Your task to perform on an android device: Open Wikipedia Image 0: 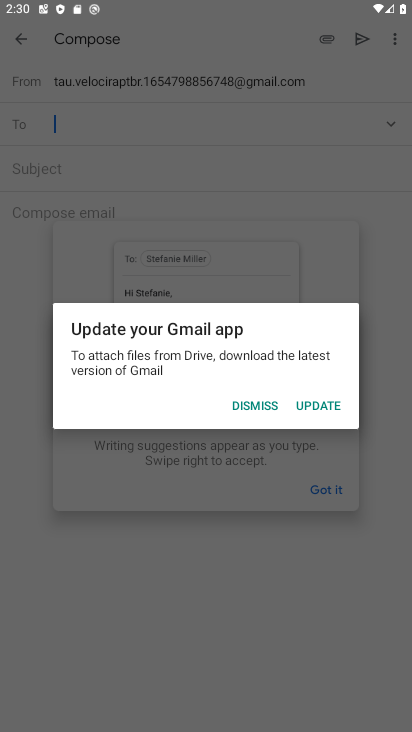
Step 0: press home button
Your task to perform on an android device: Open Wikipedia Image 1: 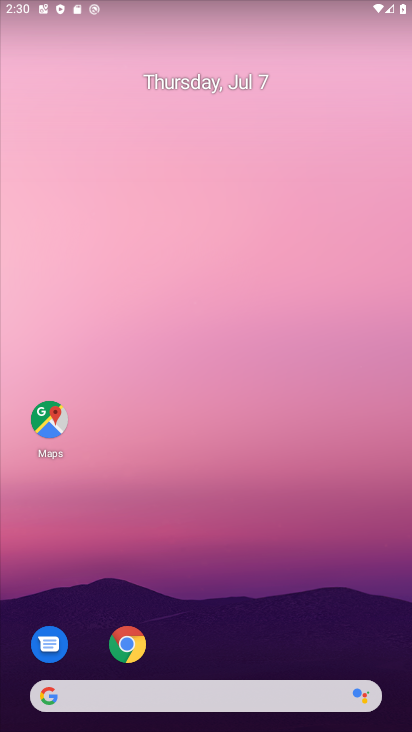
Step 1: click (43, 695)
Your task to perform on an android device: Open Wikipedia Image 2: 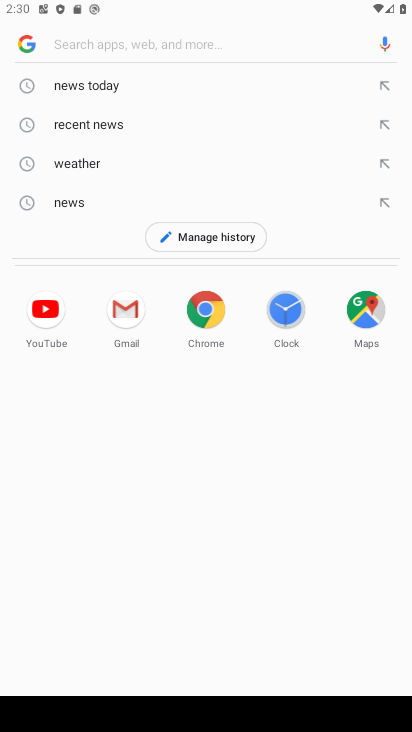
Step 2: type "wikipedia"
Your task to perform on an android device: Open Wikipedia Image 3: 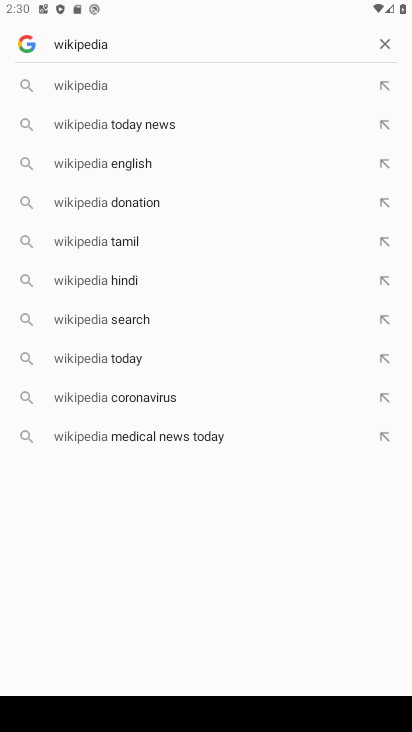
Step 3: click (71, 80)
Your task to perform on an android device: Open Wikipedia Image 4: 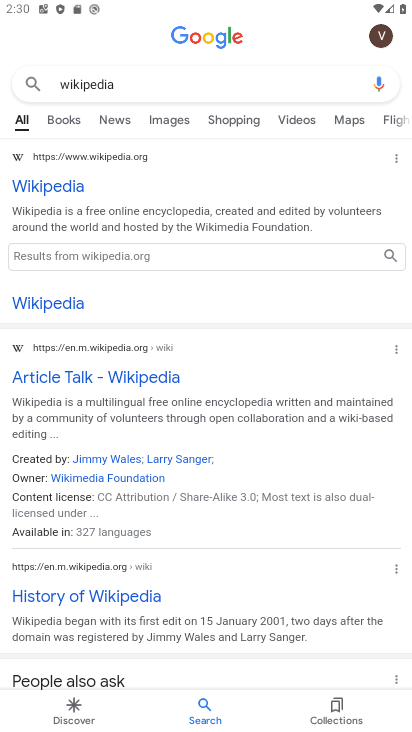
Step 4: click (36, 191)
Your task to perform on an android device: Open Wikipedia Image 5: 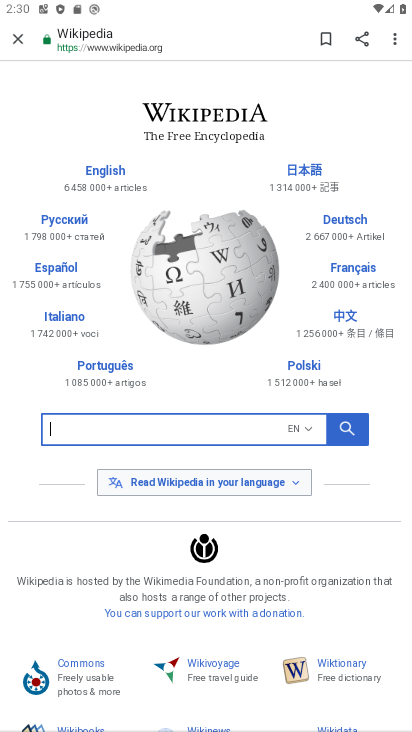
Step 5: task complete